Your task to perform on an android device: turn off notifications settings in the gmail app Image 0: 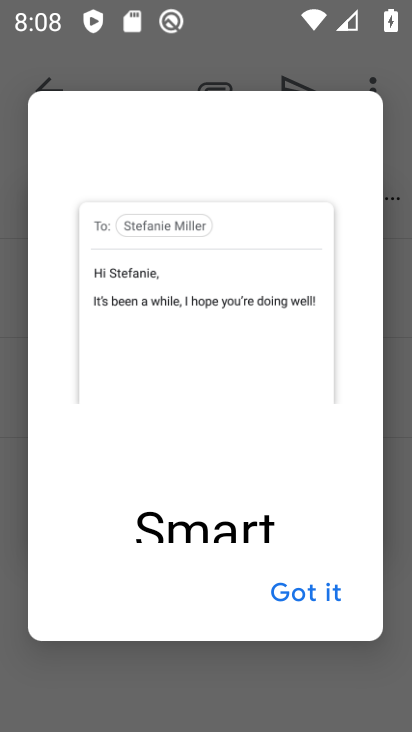
Step 0: press home button
Your task to perform on an android device: turn off notifications settings in the gmail app Image 1: 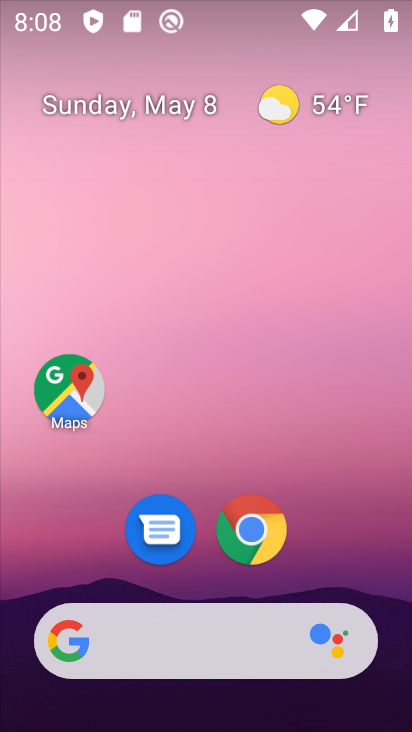
Step 1: drag from (368, 544) to (305, 122)
Your task to perform on an android device: turn off notifications settings in the gmail app Image 2: 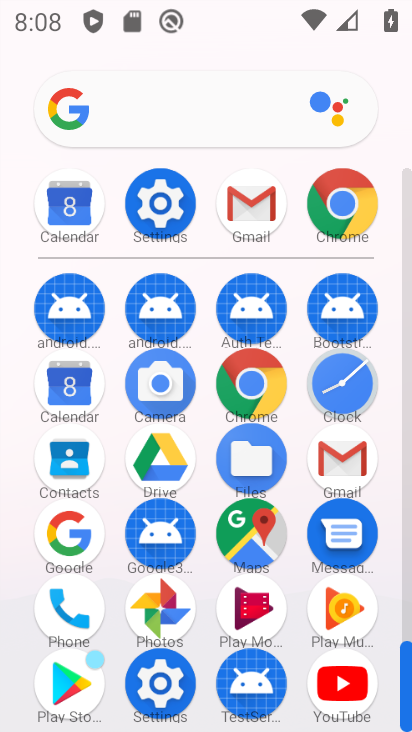
Step 2: click (336, 469)
Your task to perform on an android device: turn off notifications settings in the gmail app Image 3: 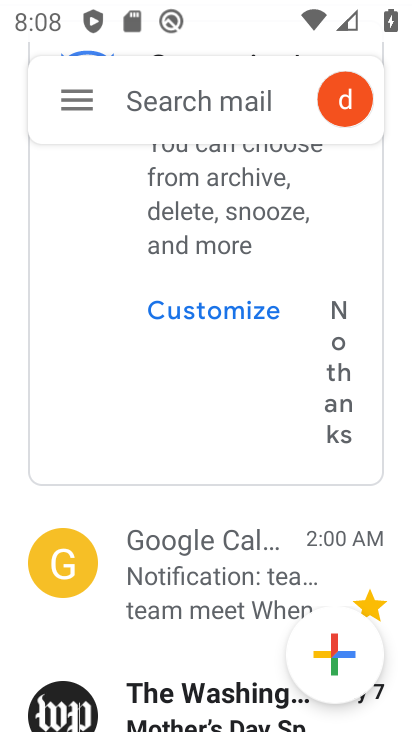
Step 3: drag from (179, 659) to (161, 233)
Your task to perform on an android device: turn off notifications settings in the gmail app Image 4: 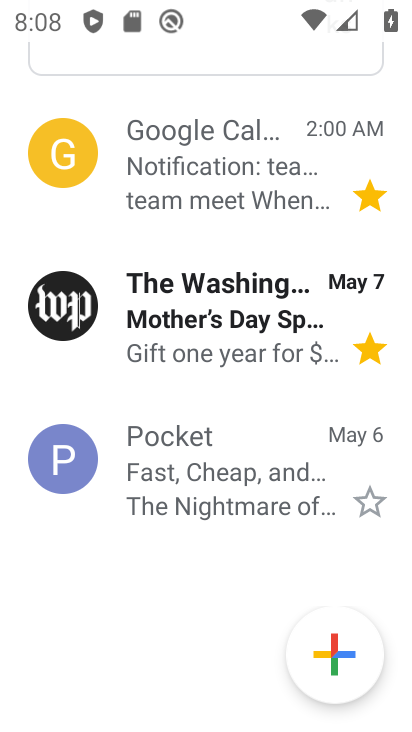
Step 4: drag from (80, 147) to (77, 435)
Your task to perform on an android device: turn off notifications settings in the gmail app Image 5: 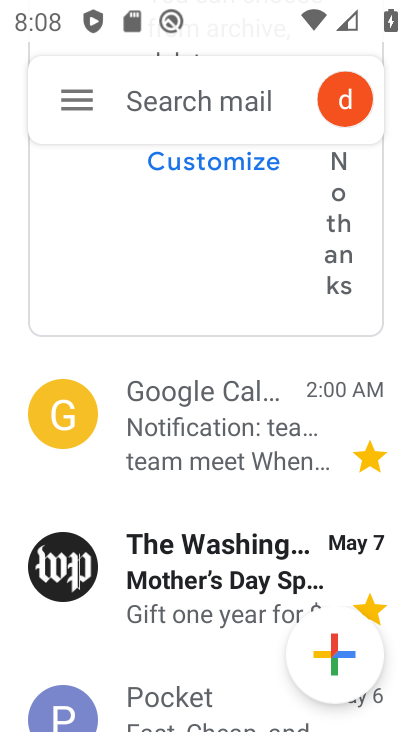
Step 5: click (75, 104)
Your task to perform on an android device: turn off notifications settings in the gmail app Image 6: 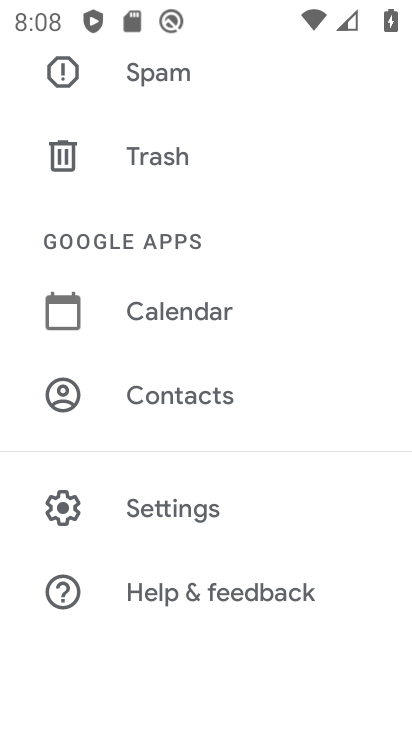
Step 6: click (163, 499)
Your task to perform on an android device: turn off notifications settings in the gmail app Image 7: 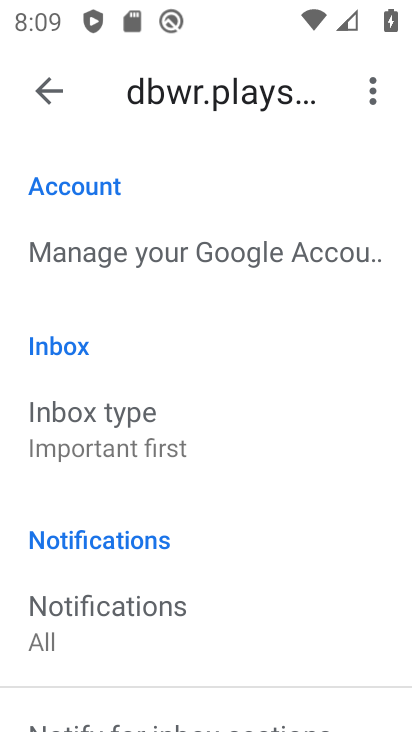
Step 7: click (92, 619)
Your task to perform on an android device: turn off notifications settings in the gmail app Image 8: 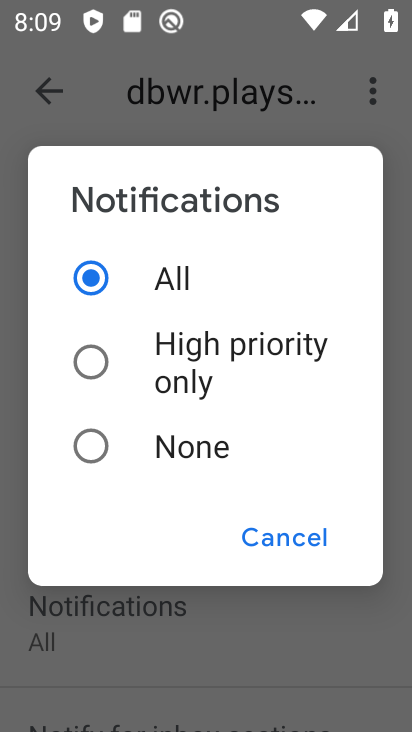
Step 8: click (99, 447)
Your task to perform on an android device: turn off notifications settings in the gmail app Image 9: 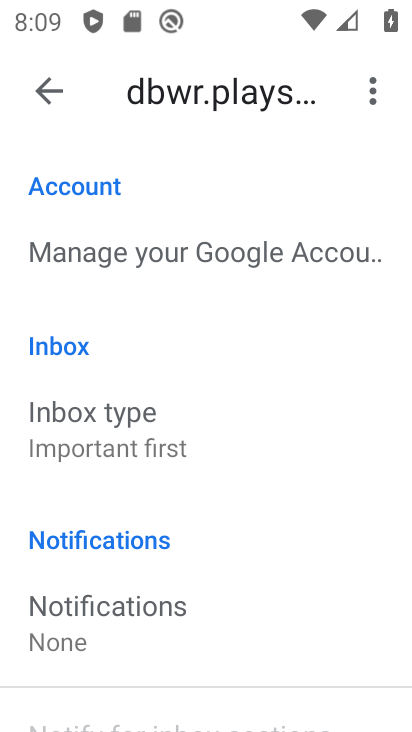
Step 9: task complete